Your task to perform on an android device: Open sound settings Image 0: 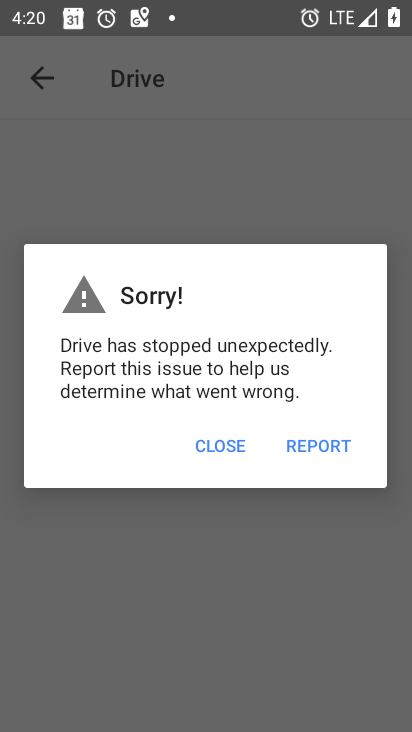
Step 0: press home button
Your task to perform on an android device: Open sound settings Image 1: 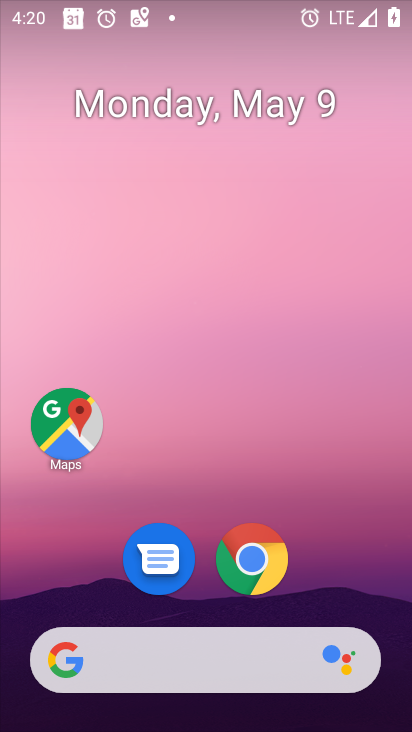
Step 1: drag from (201, 719) to (206, 129)
Your task to perform on an android device: Open sound settings Image 2: 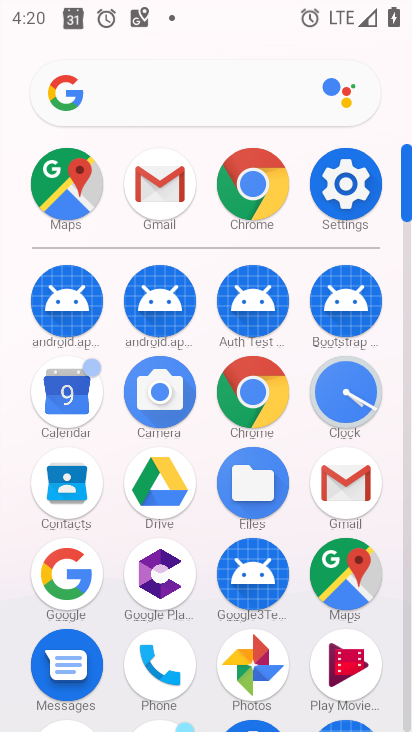
Step 2: click (347, 193)
Your task to perform on an android device: Open sound settings Image 3: 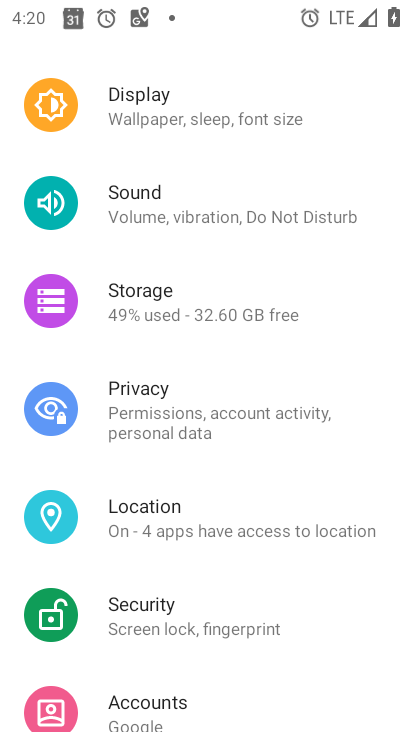
Step 3: click (164, 205)
Your task to perform on an android device: Open sound settings Image 4: 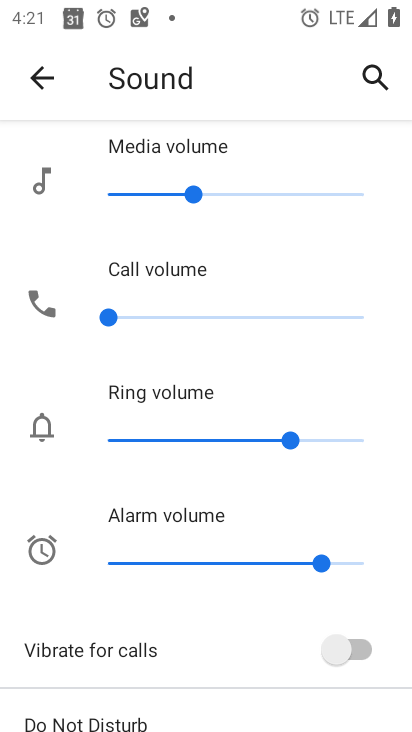
Step 4: task complete